Your task to perform on an android device: What's the weather going to be tomorrow? Image 0: 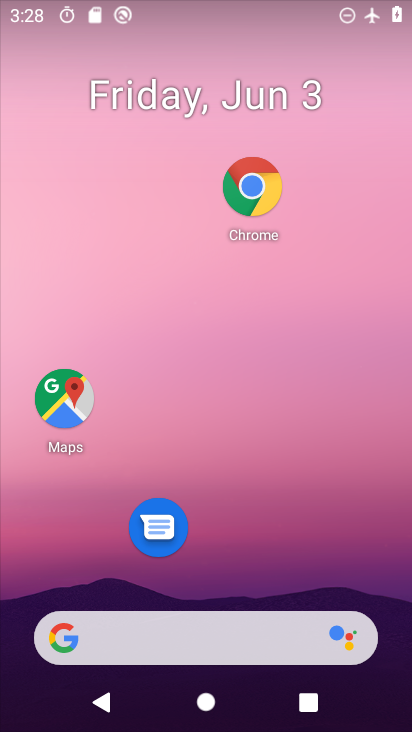
Step 0: drag from (198, 594) to (195, 216)
Your task to perform on an android device: What's the weather going to be tomorrow? Image 1: 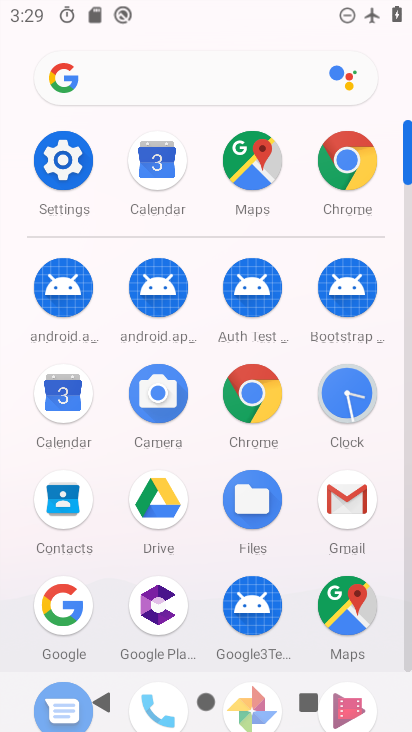
Step 1: click (333, 159)
Your task to perform on an android device: What's the weather going to be tomorrow? Image 2: 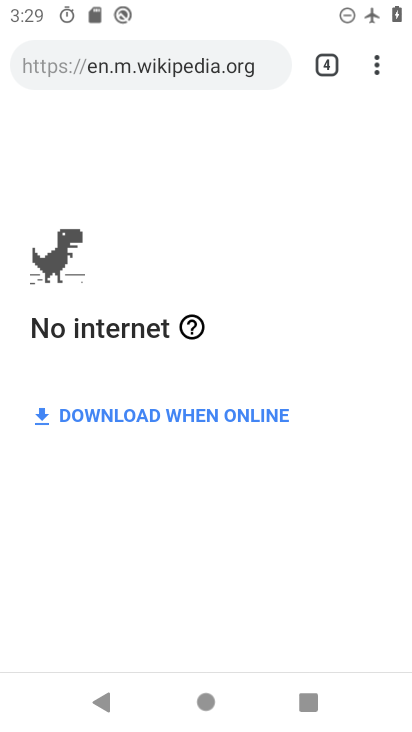
Step 2: click (391, 64)
Your task to perform on an android device: What's the weather going to be tomorrow? Image 3: 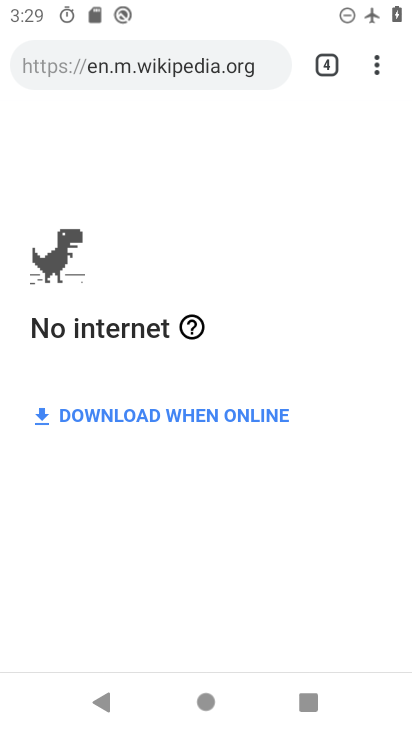
Step 3: click (378, 49)
Your task to perform on an android device: What's the weather going to be tomorrow? Image 4: 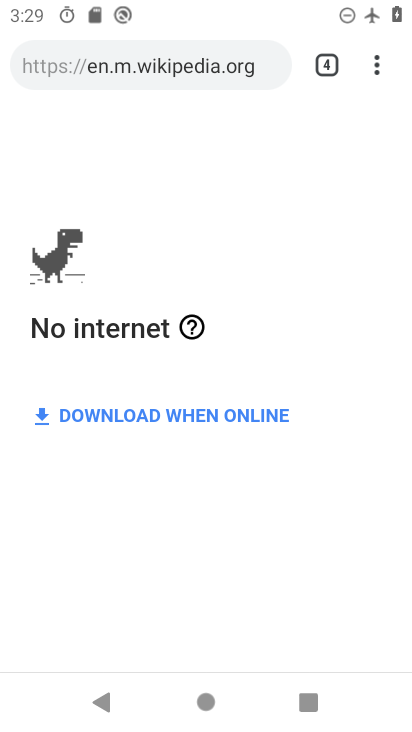
Step 4: click (372, 51)
Your task to perform on an android device: What's the weather going to be tomorrow? Image 5: 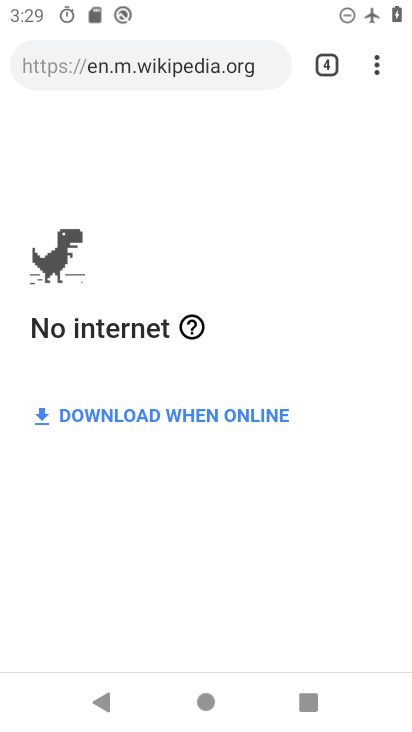
Step 5: click (384, 62)
Your task to perform on an android device: What's the weather going to be tomorrow? Image 6: 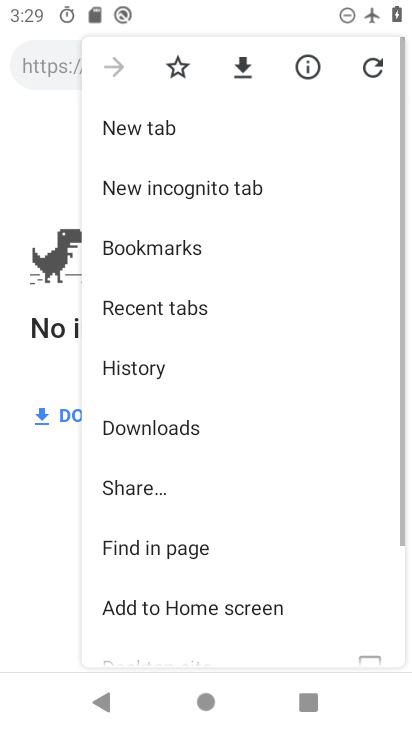
Step 6: click (181, 117)
Your task to perform on an android device: What's the weather going to be tomorrow? Image 7: 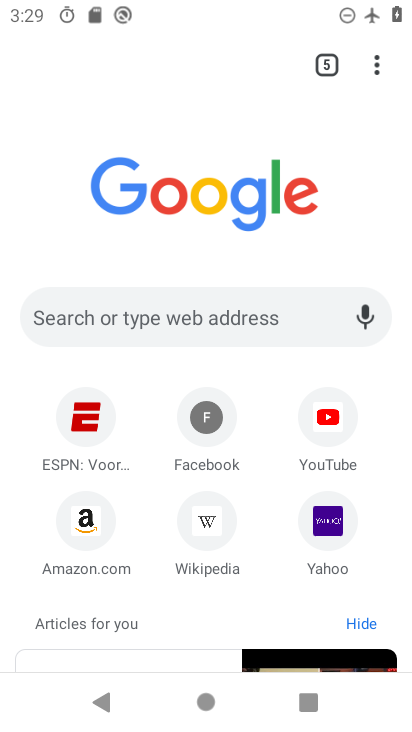
Step 7: click (147, 296)
Your task to perform on an android device: What's the weather going to be tomorrow? Image 8: 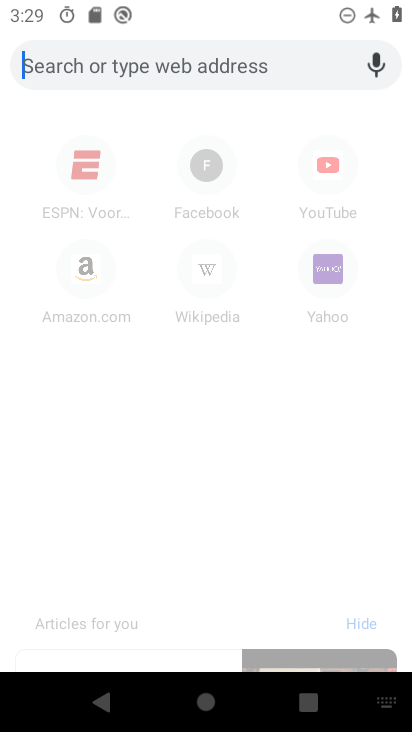
Step 8: type "What's the weather going to be tomorrow?"
Your task to perform on an android device: What's the weather going to be tomorrow? Image 9: 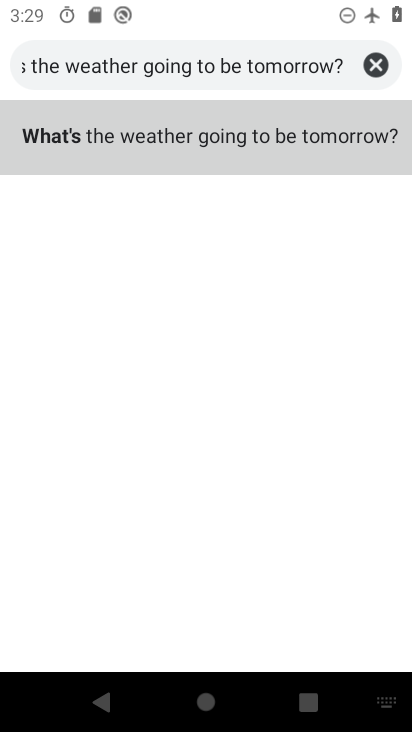
Step 9: click (159, 141)
Your task to perform on an android device: What's the weather going to be tomorrow? Image 10: 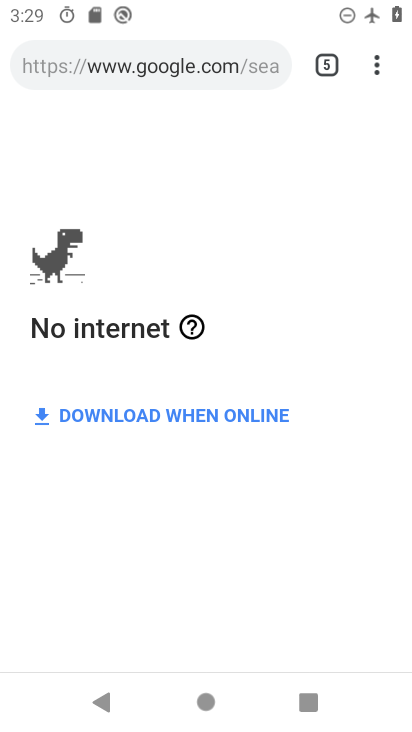
Step 10: task complete